Your task to perform on an android device: see creations saved in the google photos Image 0: 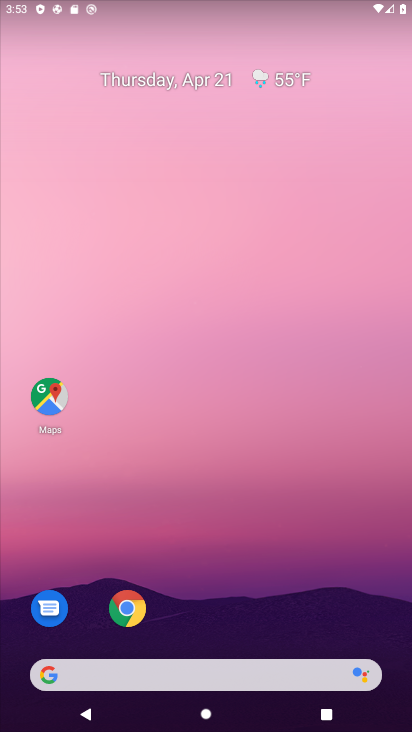
Step 0: drag from (210, 566) to (228, 414)
Your task to perform on an android device: see creations saved in the google photos Image 1: 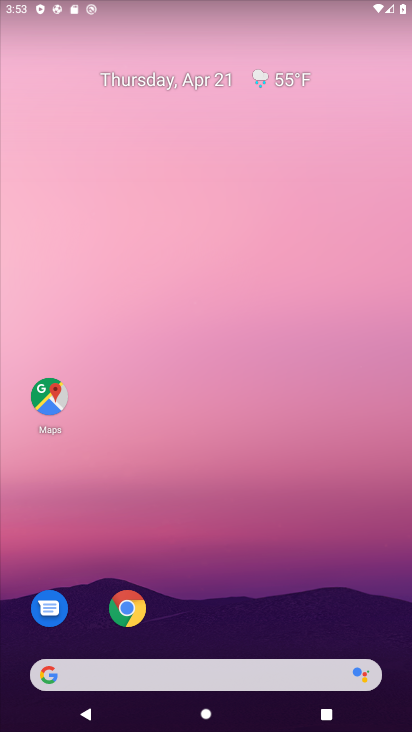
Step 1: drag from (281, 586) to (315, 113)
Your task to perform on an android device: see creations saved in the google photos Image 2: 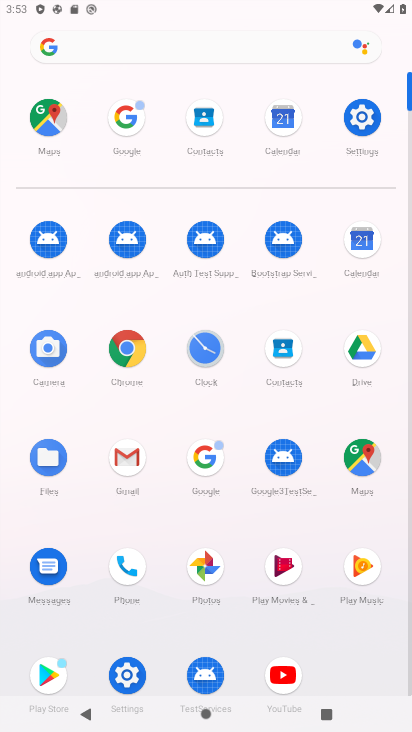
Step 2: click (207, 567)
Your task to perform on an android device: see creations saved in the google photos Image 3: 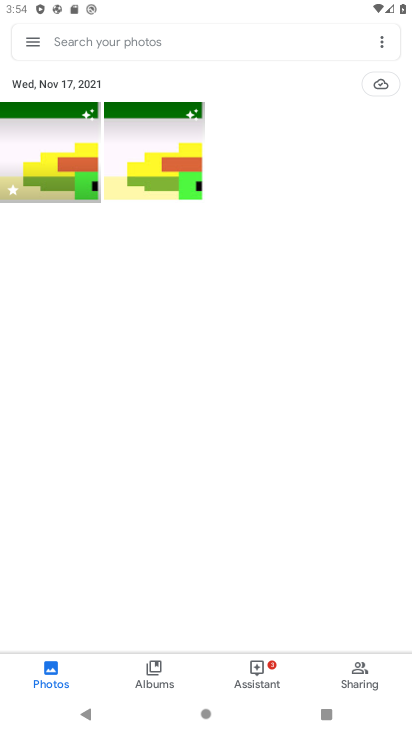
Step 3: click (265, 665)
Your task to perform on an android device: see creations saved in the google photos Image 4: 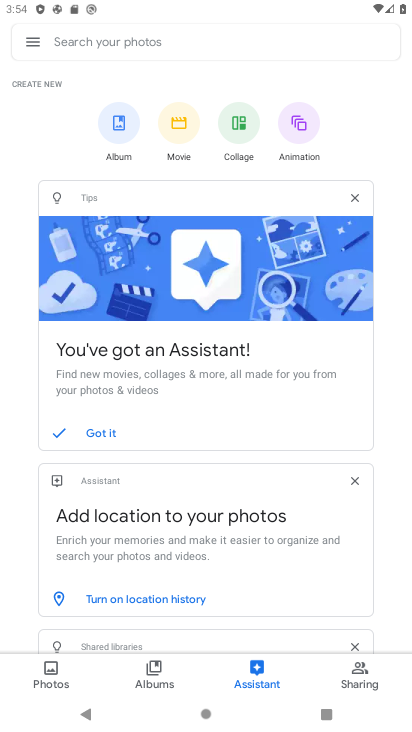
Step 4: task complete